Your task to perform on an android device: change keyboard looks Image 0: 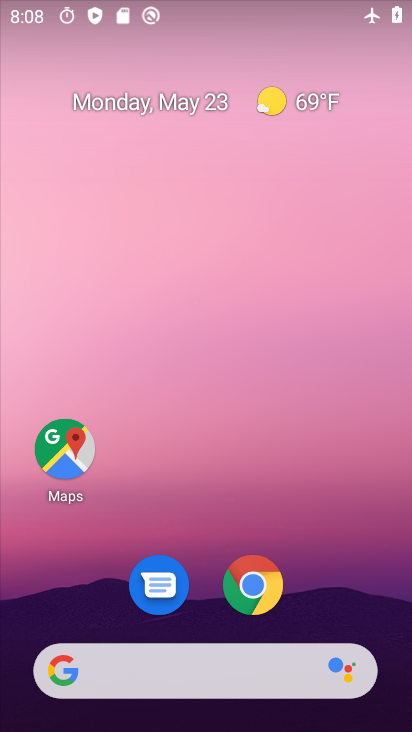
Step 0: drag from (205, 475) to (247, 8)
Your task to perform on an android device: change keyboard looks Image 1: 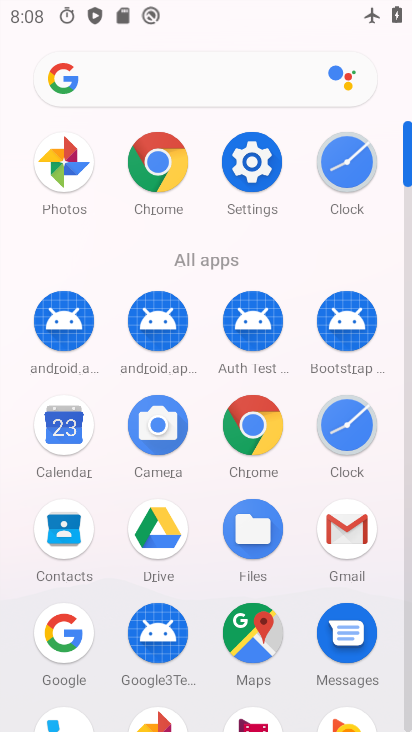
Step 1: click (243, 164)
Your task to perform on an android device: change keyboard looks Image 2: 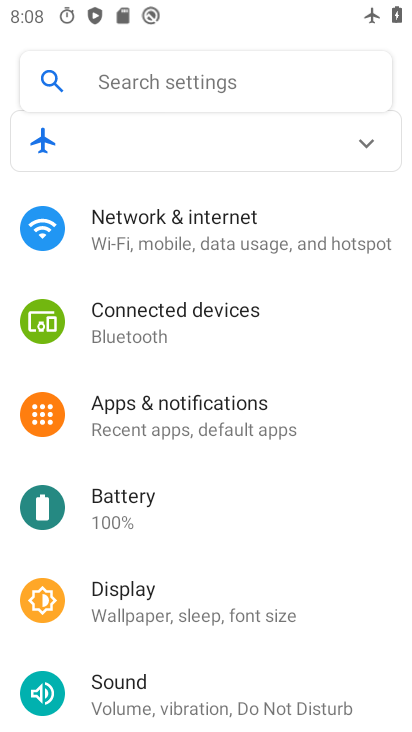
Step 2: drag from (228, 586) to (292, 27)
Your task to perform on an android device: change keyboard looks Image 3: 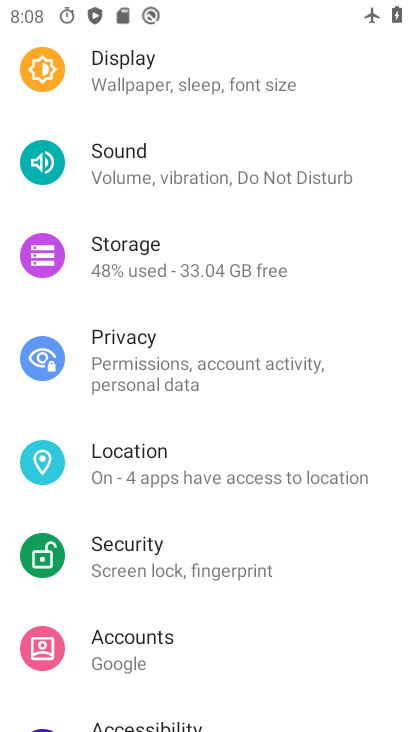
Step 3: drag from (231, 539) to (253, 144)
Your task to perform on an android device: change keyboard looks Image 4: 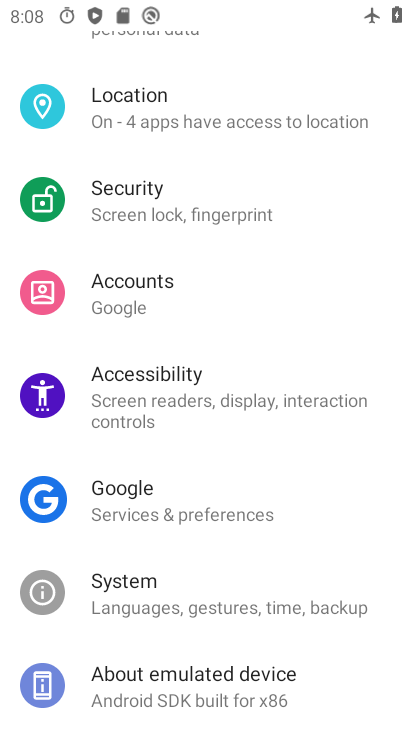
Step 4: click (164, 584)
Your task to perform on an android device: change keyboard looks Image 5: 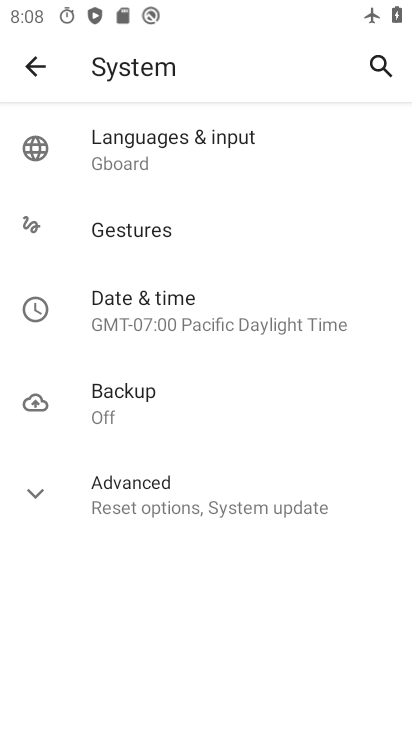
Step 5: click (220, 149)
Your task to perform on an android device: change keyboard looks Image 6: 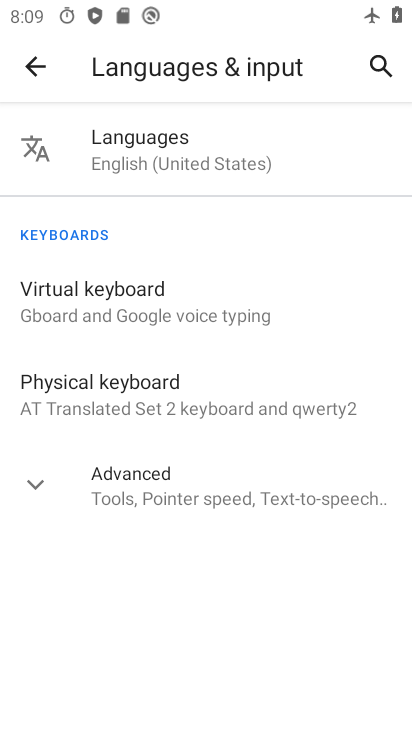
Step 6: click (190, 304)
Your task to perform on an android device: change keyboard looks Image 7: 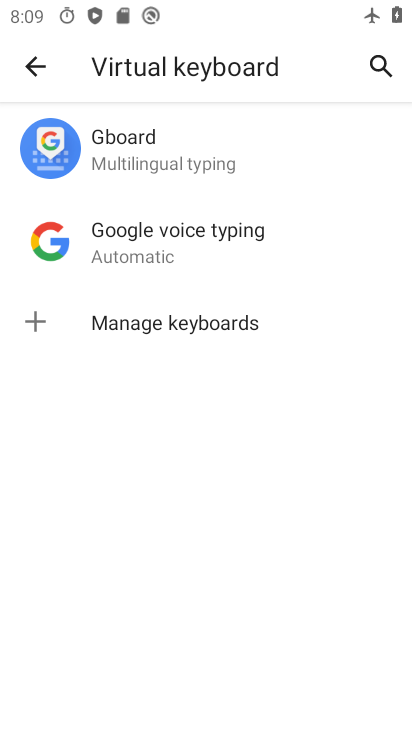
Step 7: click (164, 149)
Your task to perform on an android device: change keyboard looks Image 8: 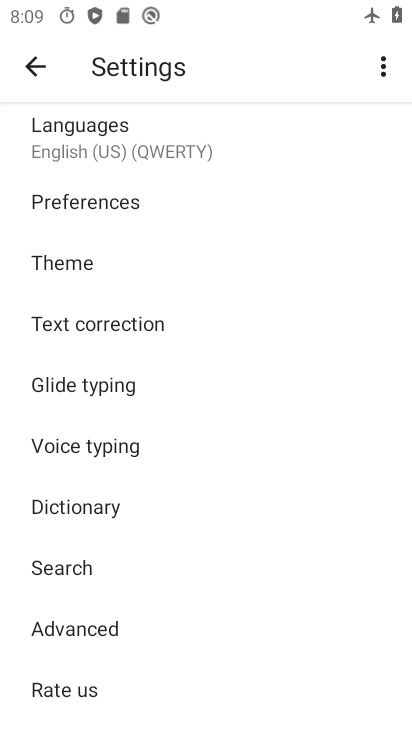
Step 8: click (89, 275)
Your task to perform on an android device: change keyboard looks Image 9: 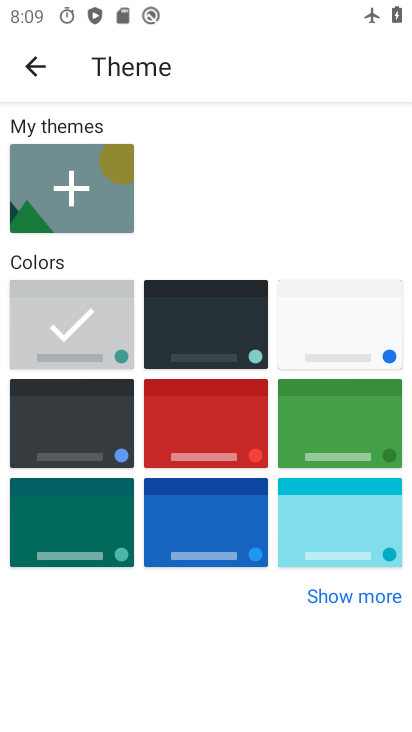
Step 9: click (195, 415)
Your task to perform on an android device: change keyboard looks Image 10: 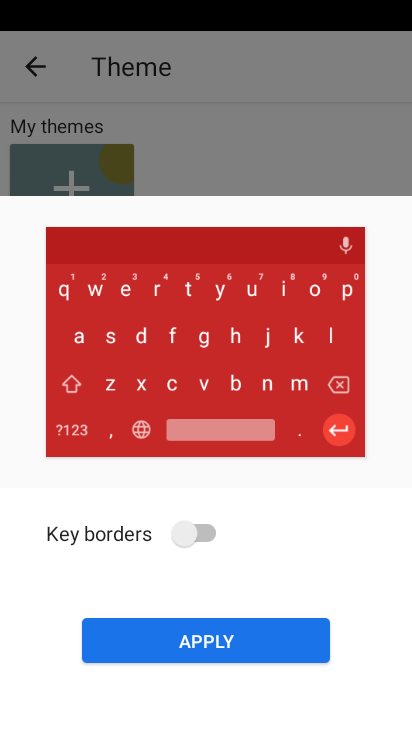
Step 10: click (198, 531)
Your task to perform on an android device: change keyboard looks Image 11: 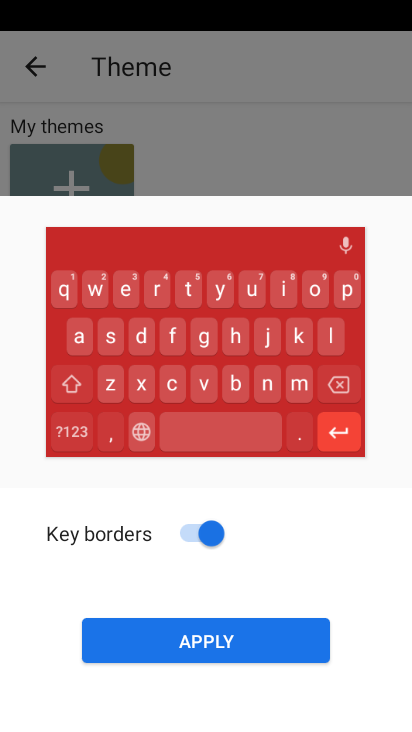
Step 11: click (177, 630)
Your task to perform on an android device: change keyboard looks Image 12: 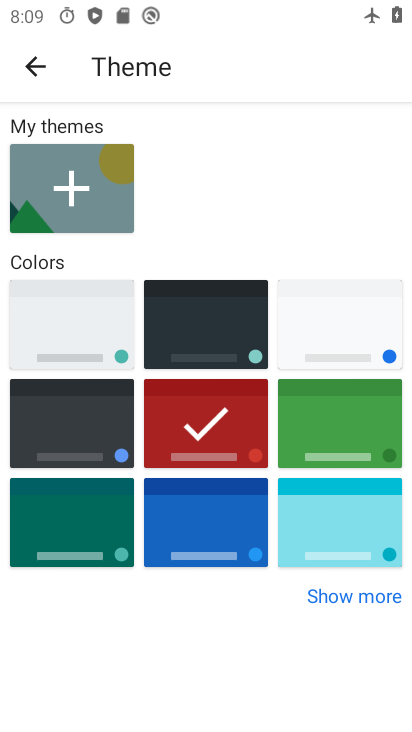
Step 12: task complete